Your task to perform on an android device: Go to battery settings Image 0: 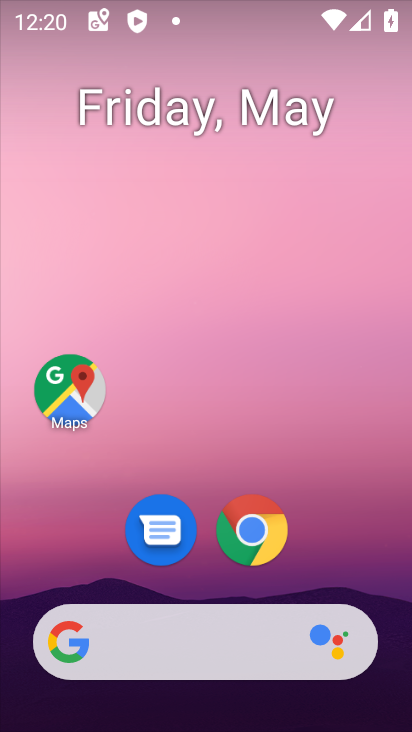
Step 0: drag from (330, 570) to (248, 78)
Your task to perform on an android device: Go to battery settings Image 1: 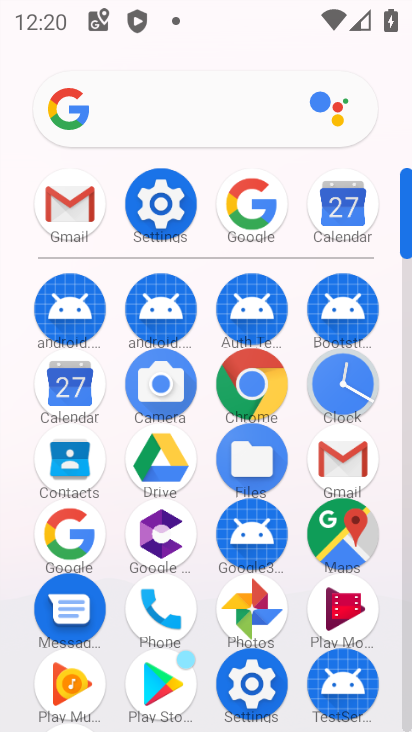
Step 1: click (162, 205)
Your task to perform on an android device: Go to battery settings Image 2: 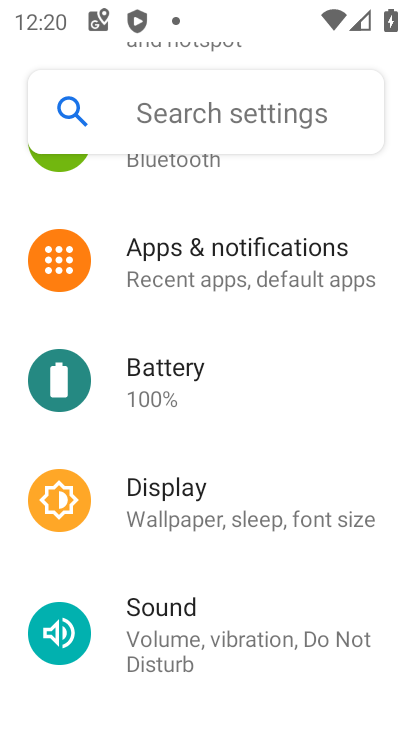
Step 2: click (165, 371)
Your task to perform on an android device: Go to battery settings Image 3: 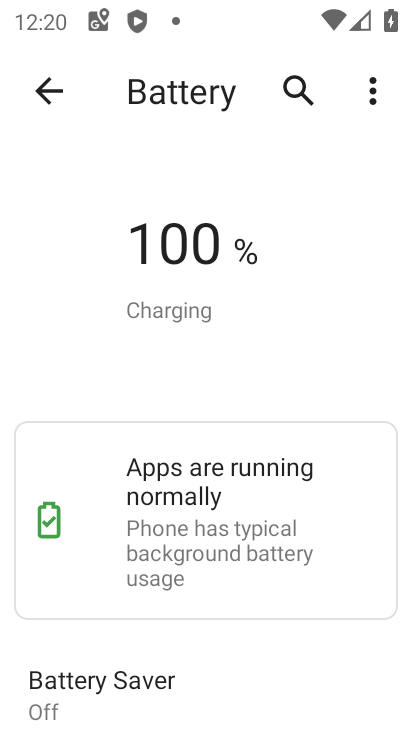
Step 3: task complete